Your task to perform on an android device: Show me the alarms in the clock app Image 0: 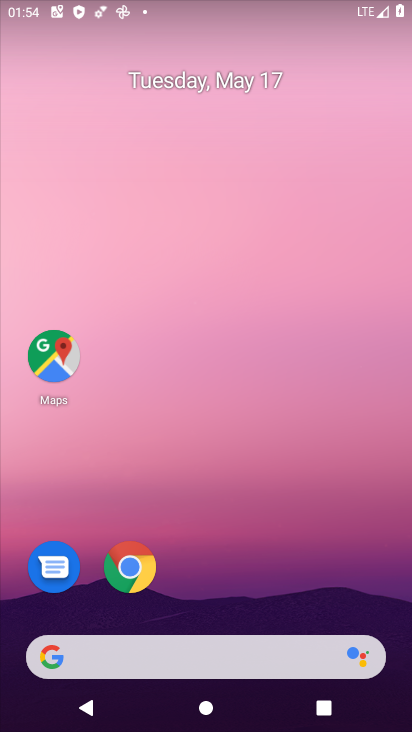
Step 0: drag from (395, 624) to (336, 144)
Your task to perform on an android device: Show me the alarms in the clock app Image 1: 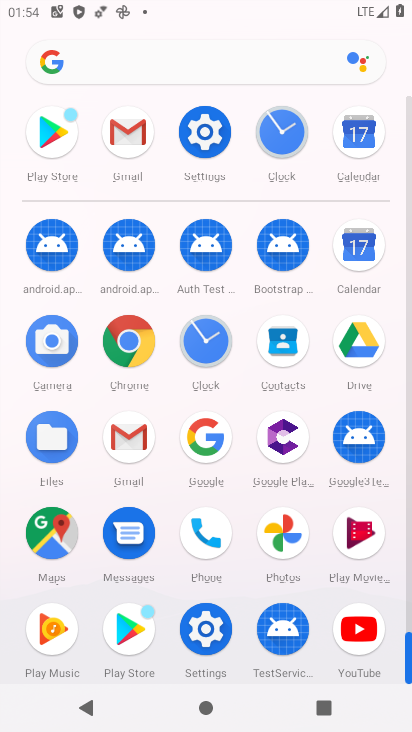
Step 1: click (206, 340)
Your task to perform on an android device: Show me the alarms in the clock app Image 2: 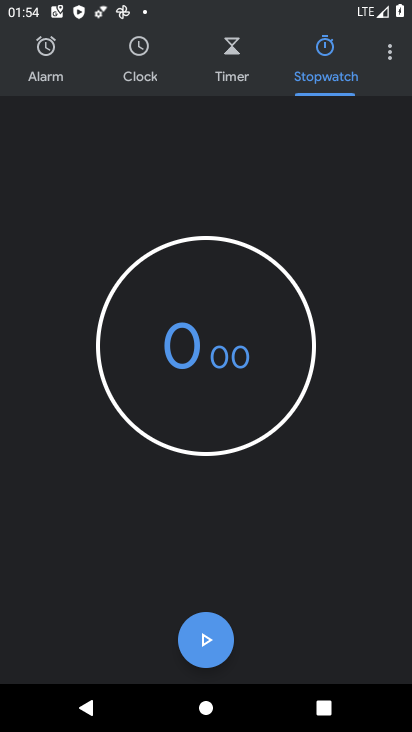
Step 2: click (56, 50)
Your task to perform on an android device: Show me the alarms in the clock app Image 3: 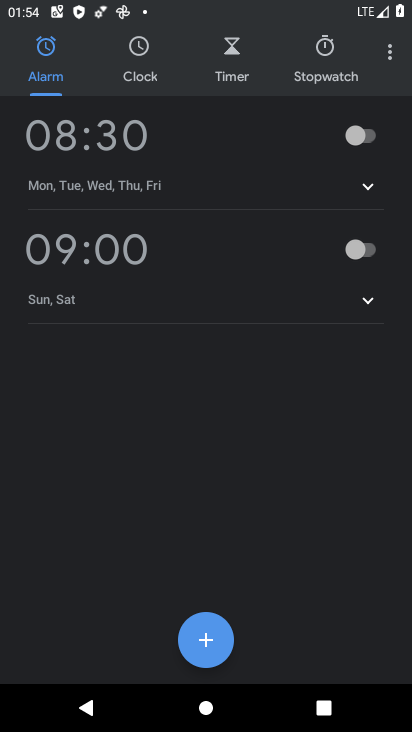
Step 3: task complete